Your task to perform on an android device: toggle translation in the chrome app Image 0: 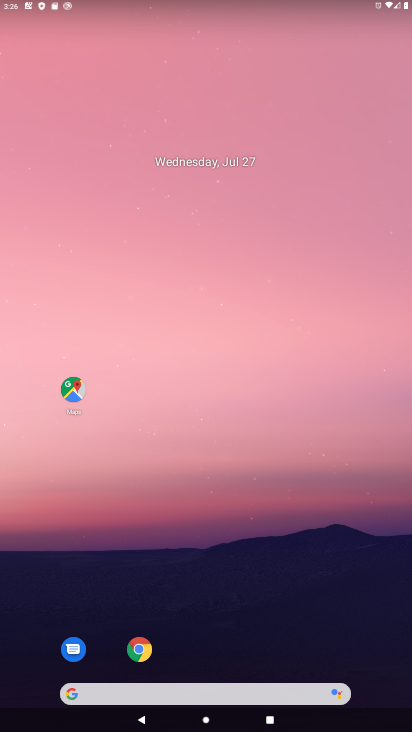
Step 0: click (140, 653)
Your task to perform on an android device: toggle translation in the chrome app Image 1: 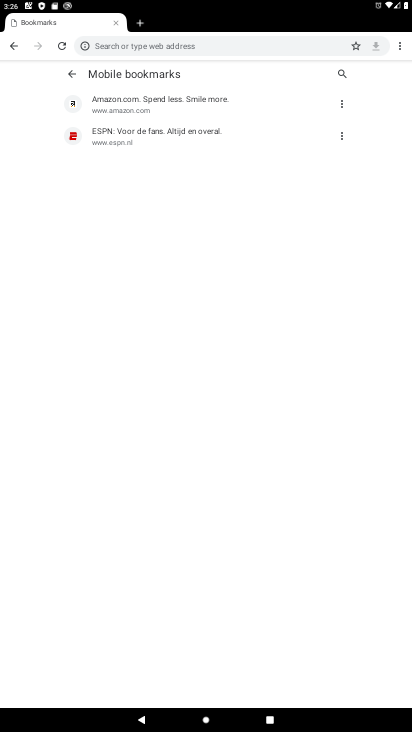
Step 1: click (402, 50)
Your task to perform on an android device: toggle translation in the chrome app Image 2: 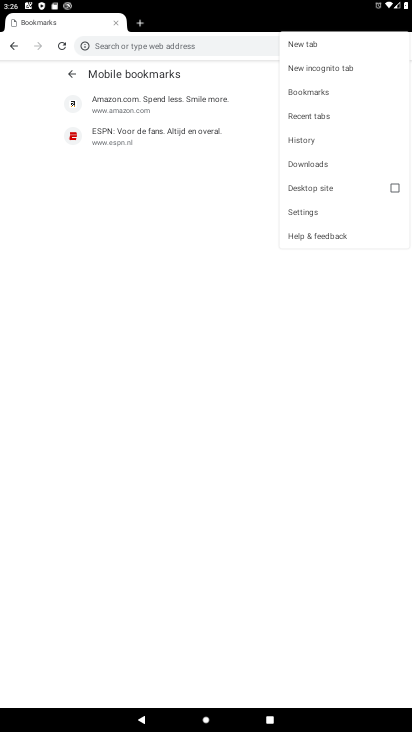
Step 2: click (298, 213)
Your task to perform on an android device: toggle translation in the chrome app Image 3: 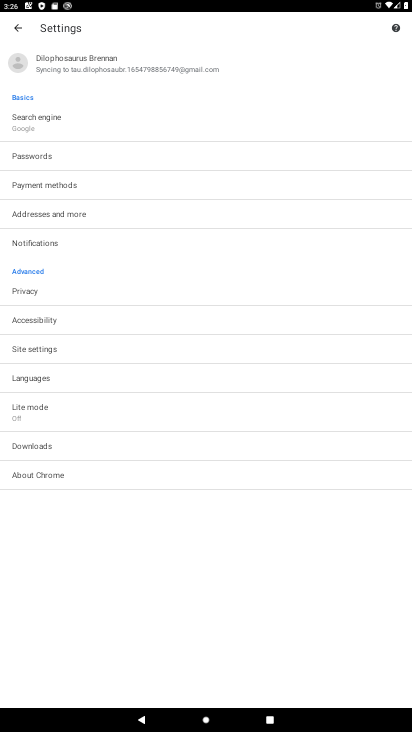
Step 3: click (28, 379)
Your task to perform on an android device: toggle translation in the chrome app Image 4: 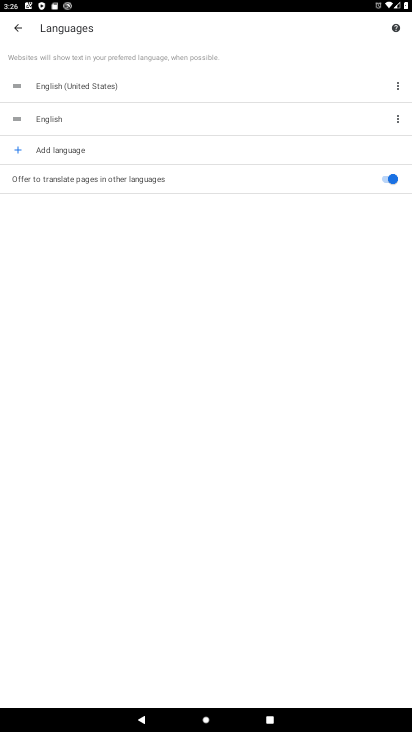
Step 4: click (383, 178)
Your task to perform on an android device: toggle translation in the chrome app Image 5: 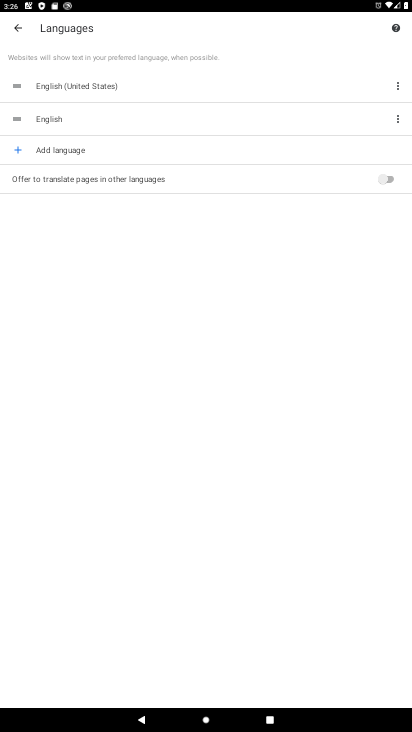
Step 5: task complete